Your task to perform on an android device: Open Maps and search for coffee Image 0: 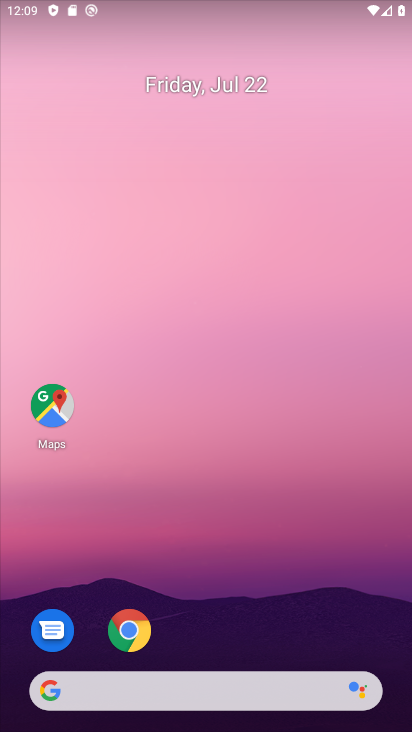
Step 0: drag from (267, 558) to (255, 1)
Your task to perform on an android device: Open Maps and search for coffee Image 1: 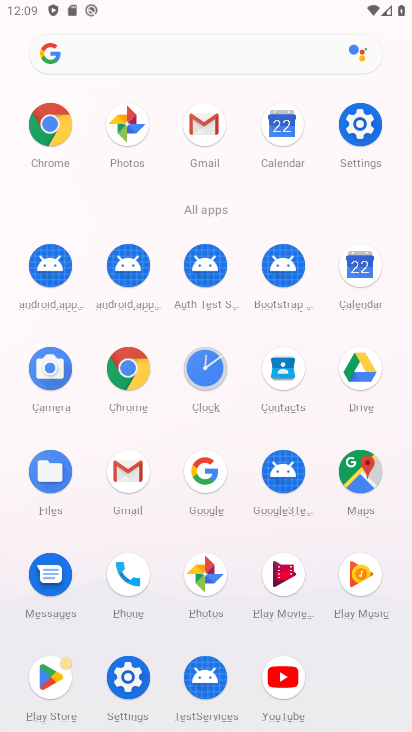
Step 1: click (366, 475)
Your task to perform on an android device: Open Maps and search for coffee Image 2: 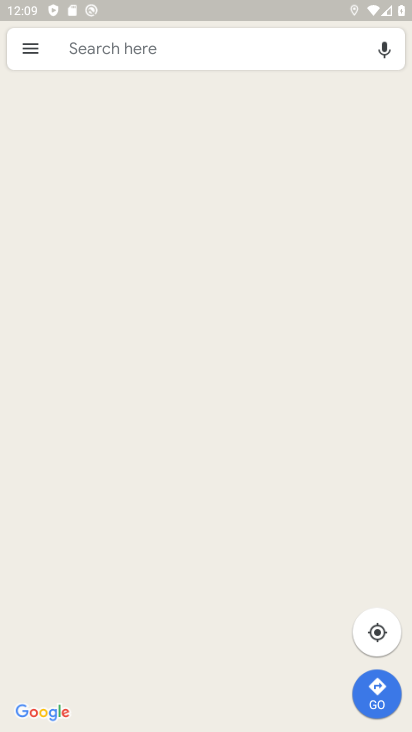
Step 2: click (178, 59)
Your task to perform on an android device: Open Maps and search for coffee Image 3: 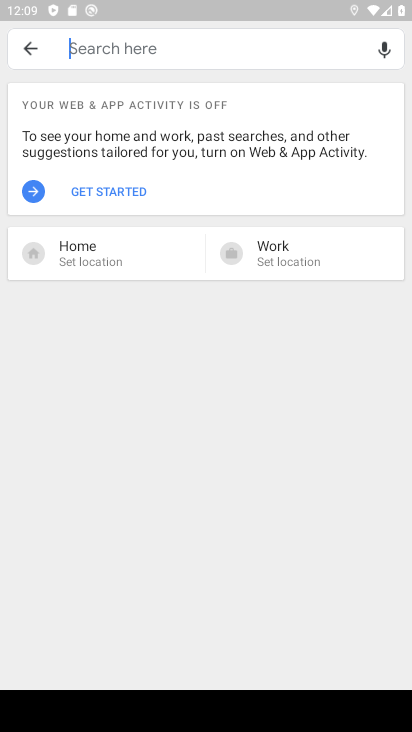
Step 3: type "coffee"
Your task to perform on an android device: Open Maps and search for coffee Image 4: 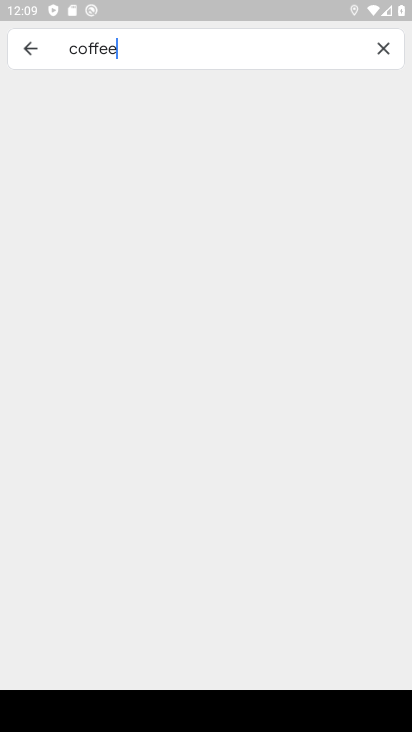
Step 4: type ""
Your task to perform on an android device: Open Maps and search for coffee Image 5: 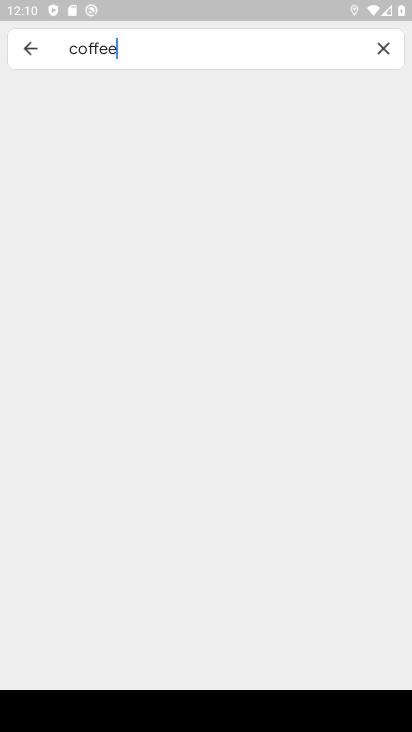
Step 5: click (384, 43)
Your task to perform on an android device: Open Maps and search for coffee Image 6: 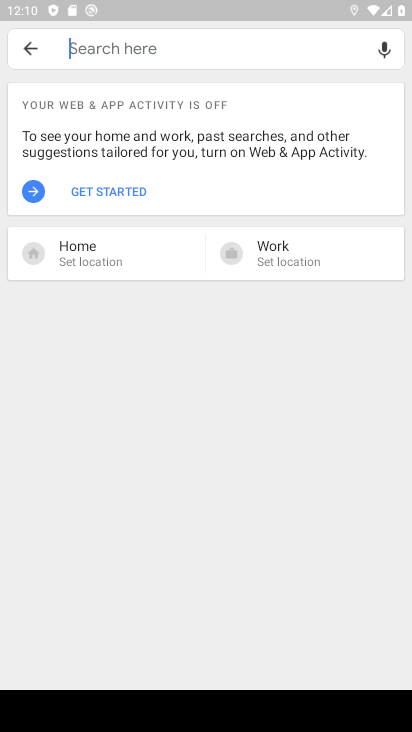
Step 6: click (287, 48)
Your task to perform on an android device: Open Maps and search for coffee Image 7: 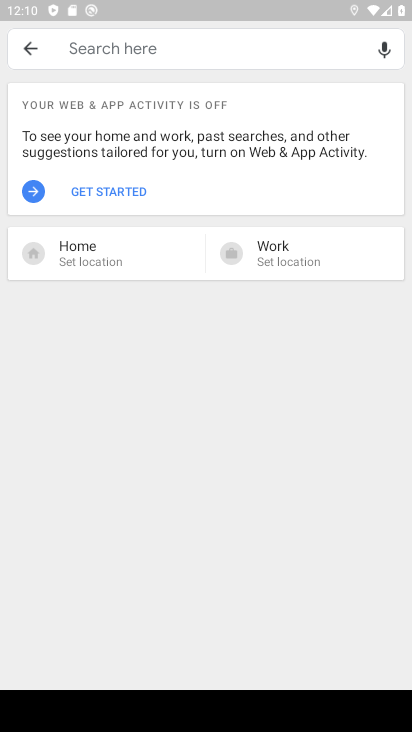
Step 7: type "coffee"
Your task to perform on an android device: Open Maps and search for coffee Image 8: 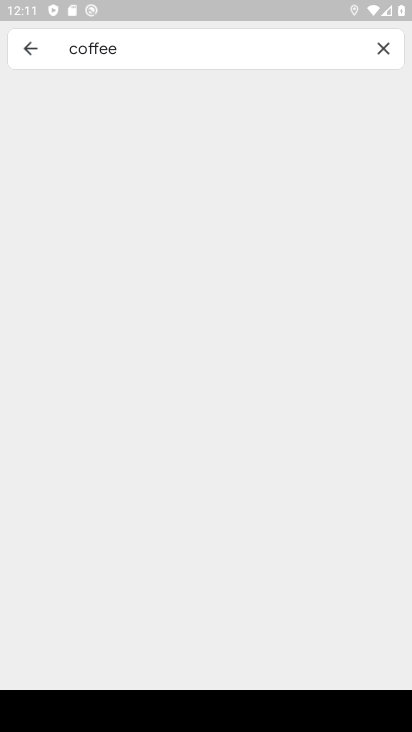
Step 8: task complete